Your task to perform on an android device: Open my contact list Image 0: 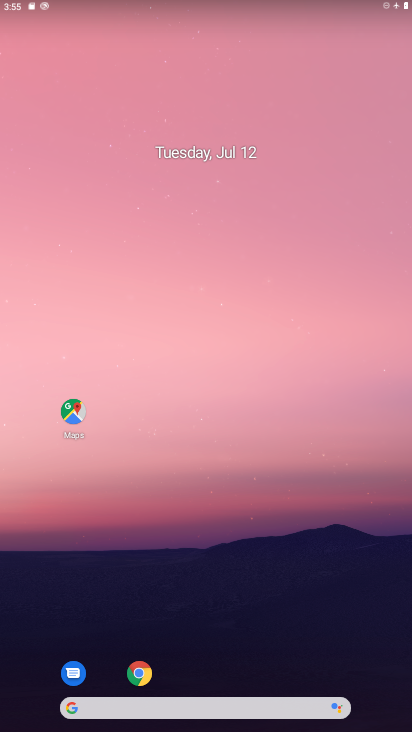
Step 0: drag from (222, 703) to (248, 112)
Your task to perform on an android device: Open my contact list Image 1: 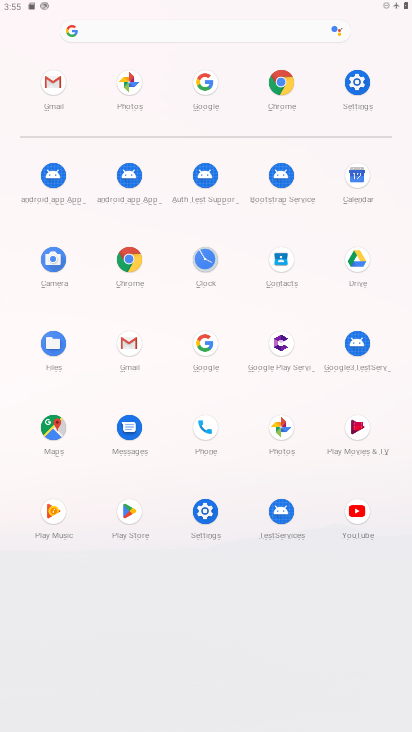
Step 1: click (278, 262)
Your task to perform on an android device: Open my contact list Image 2: 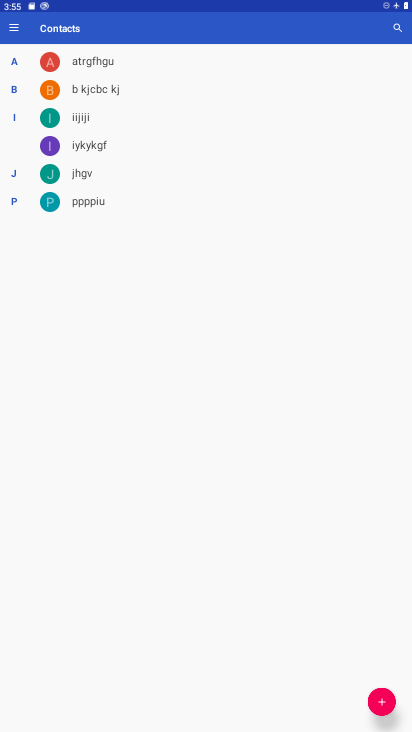
Step 2: task complete